Your task to perform on an android device: add a contact Image 0: 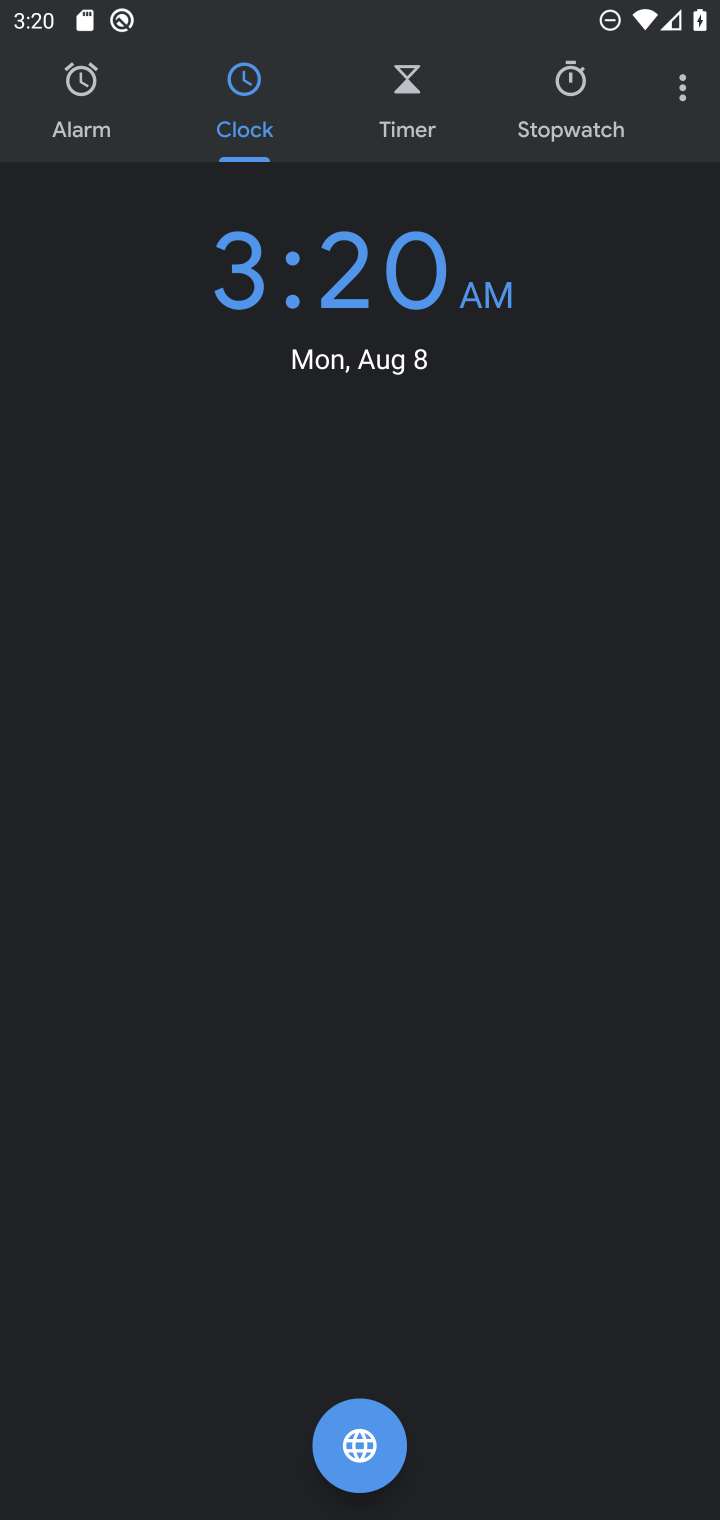
Step 0: press home button
Your task to perform on an android device: add a contact Image 1: 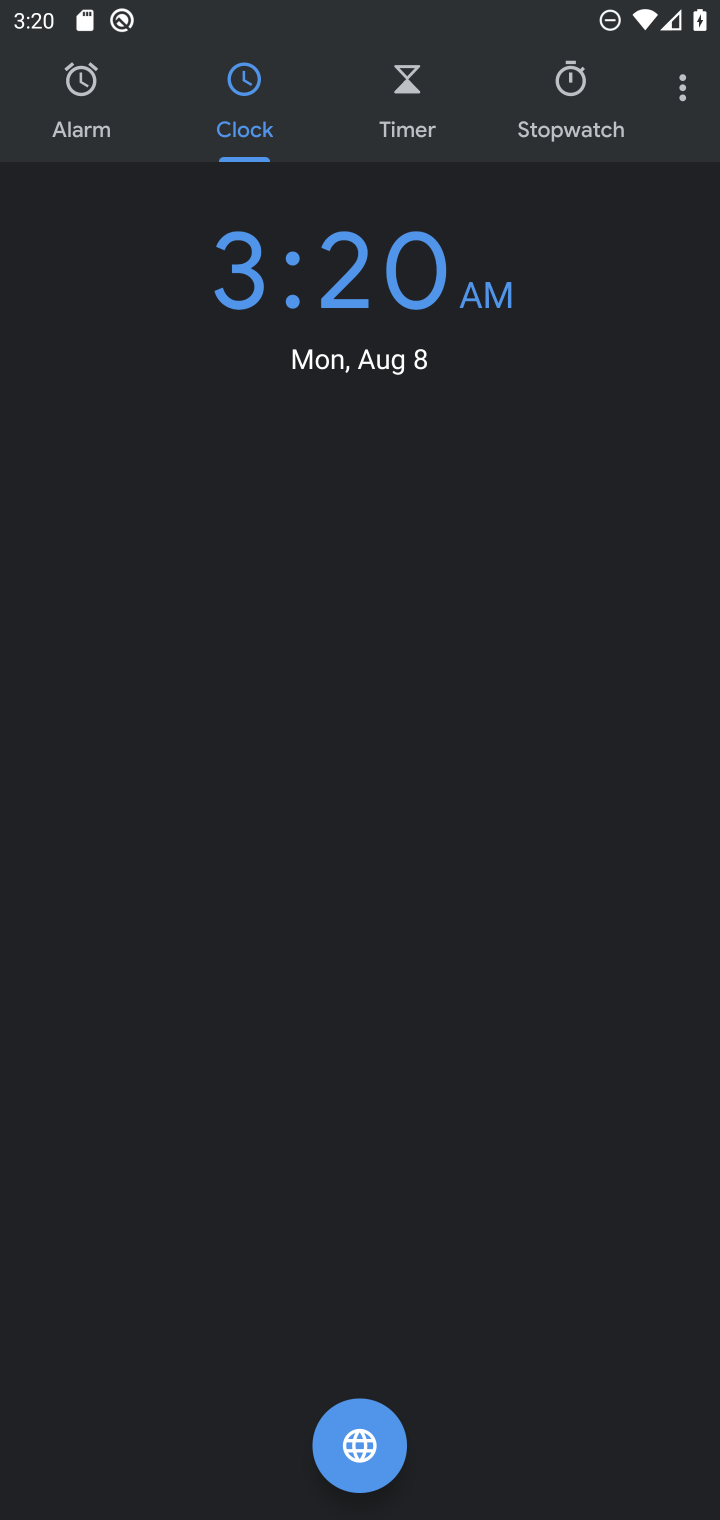
Step 1: press home button
Your task to perform on an android device: add a contact Image 2: 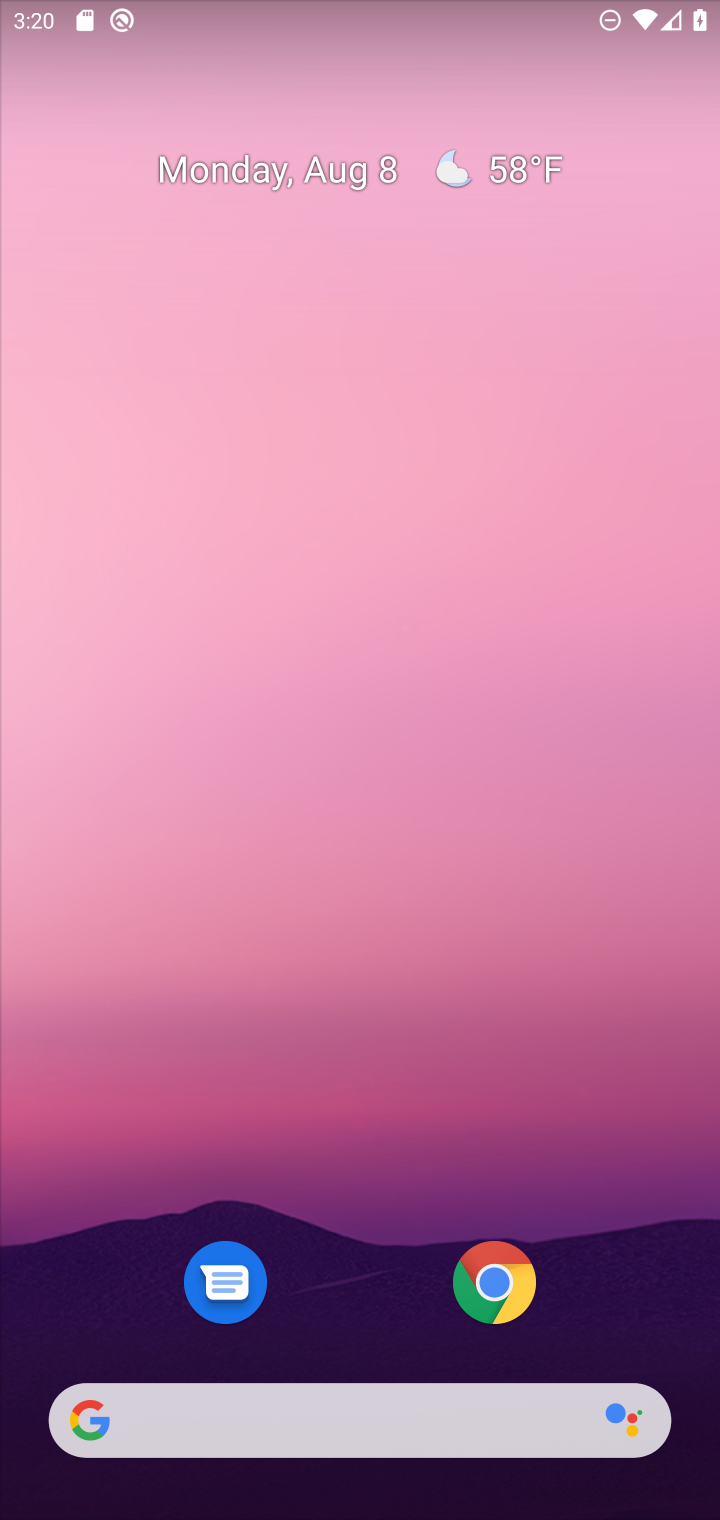
Step 2: drag from (355, 1145) to (561, 190)
Your task to perform on an android device: add a contact Image 3: 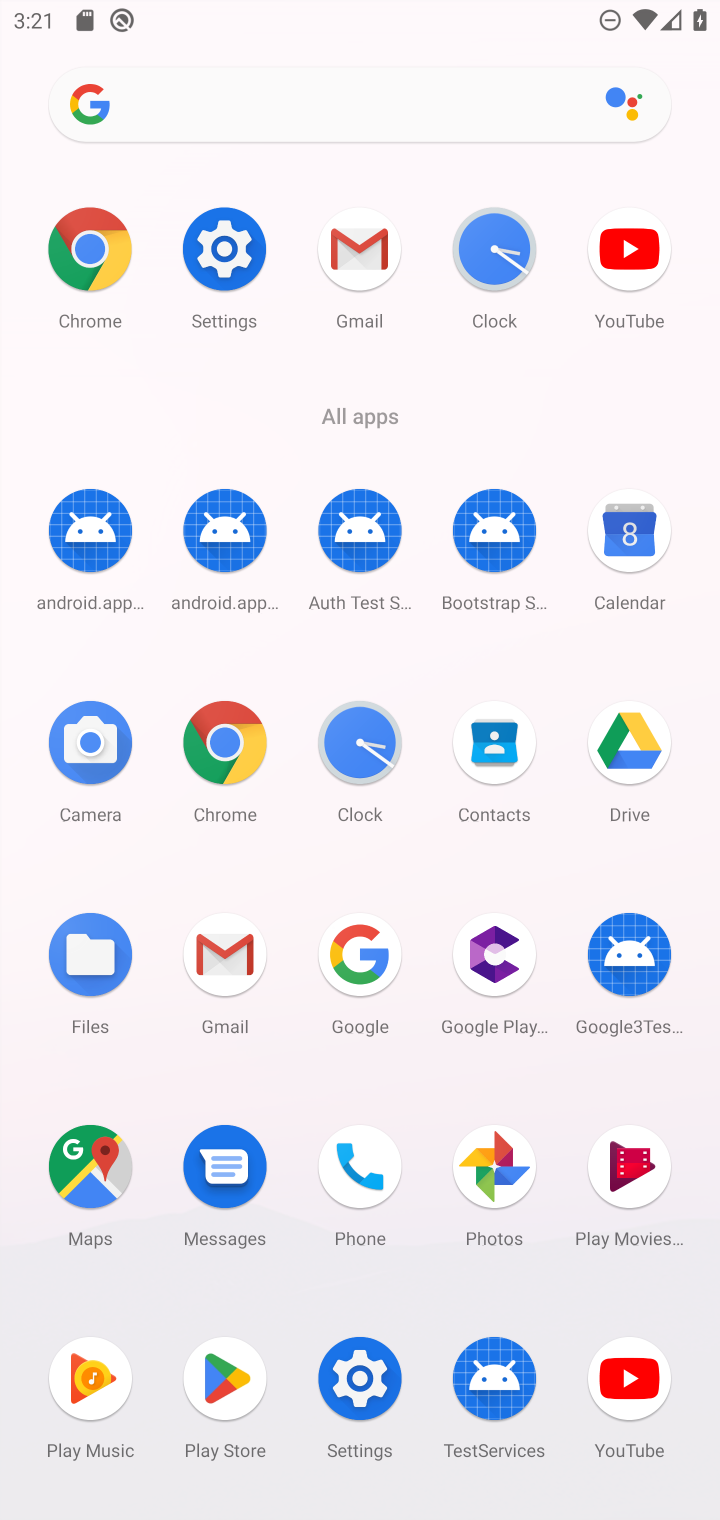
Step 3: click (618, 521)
Your task to perform on an android device: add a contact Image 4: 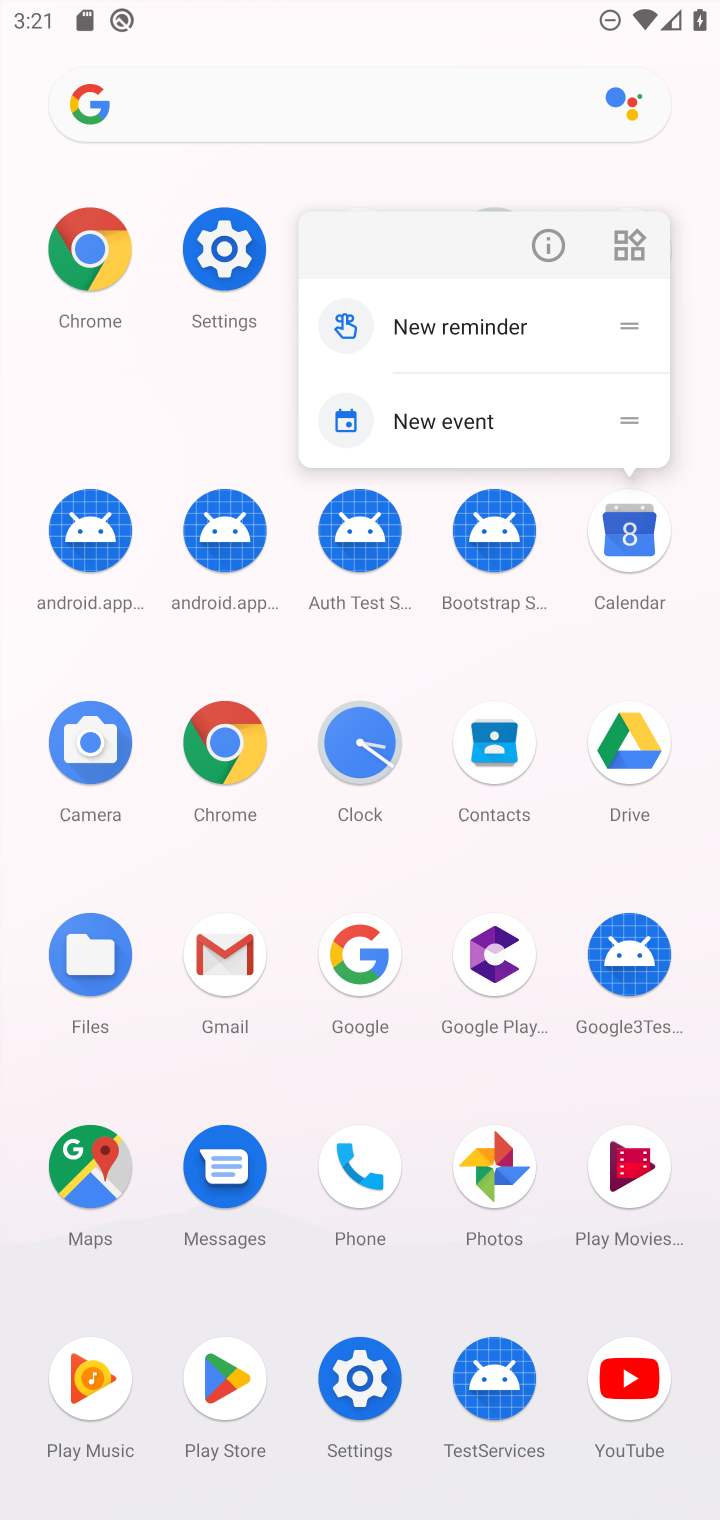
Step 4: click (623, 528)
Your task to perform on an android device: add a contact Image 5: 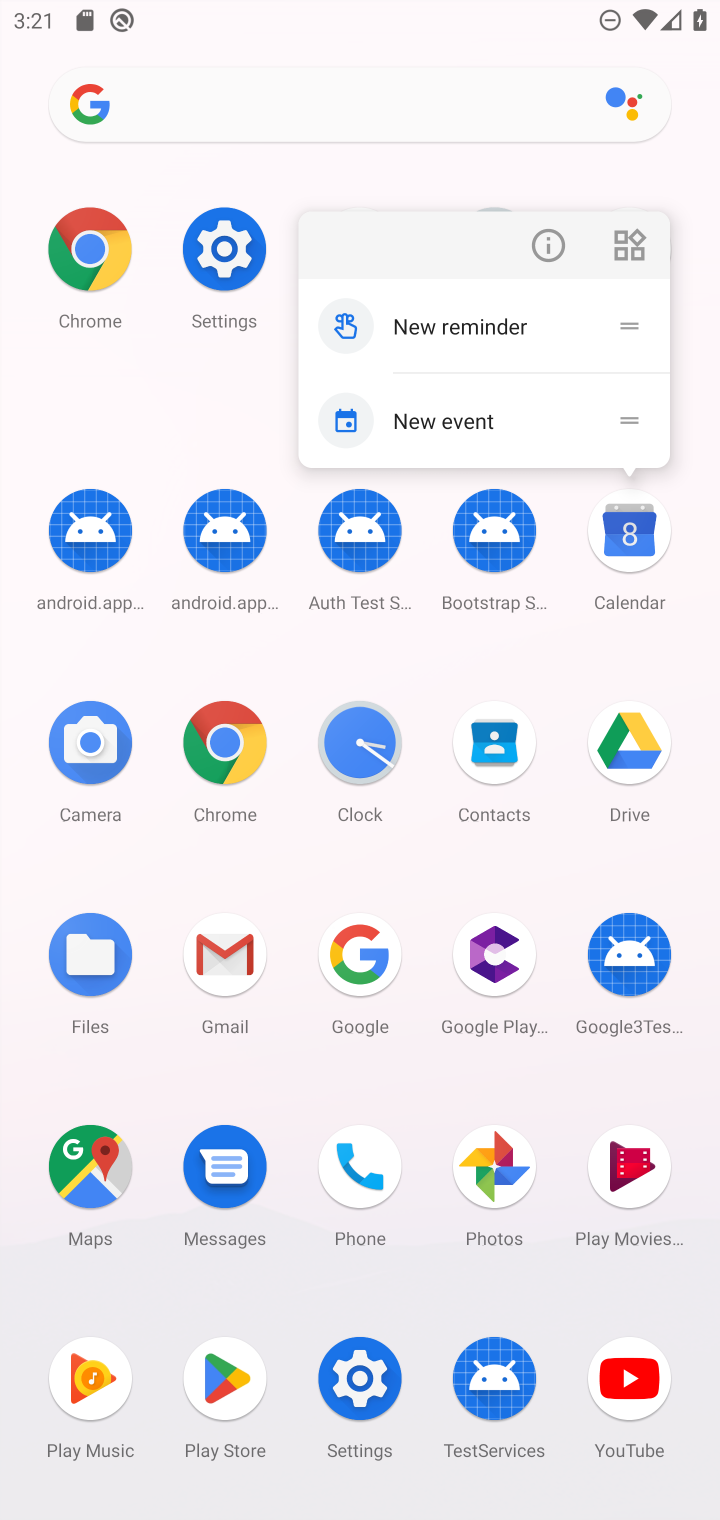
Step 5: click (623, 528)
Your task to perform on an android device: add a contact Image 6: 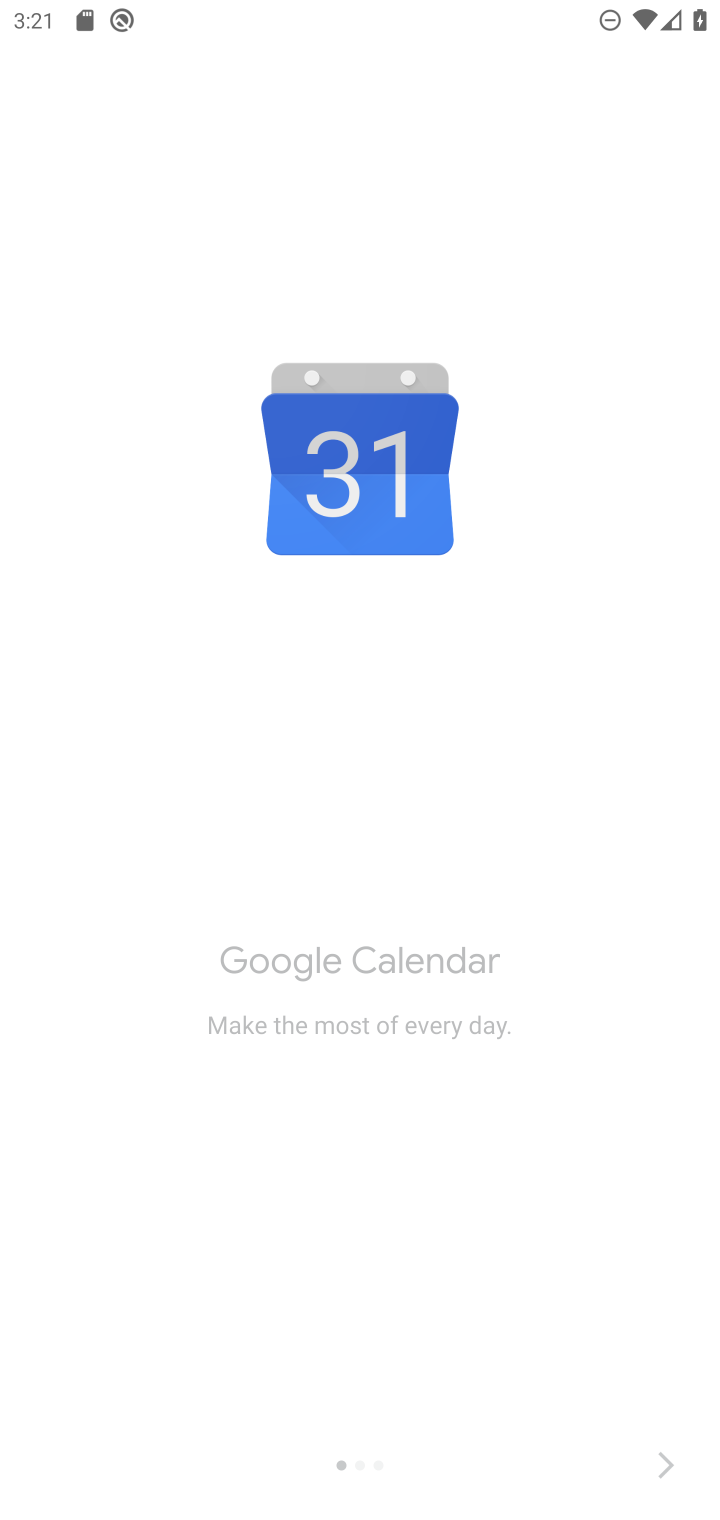
Step 6: click (625, 530)
Your task to perform on an android device: add a contact Image 7: 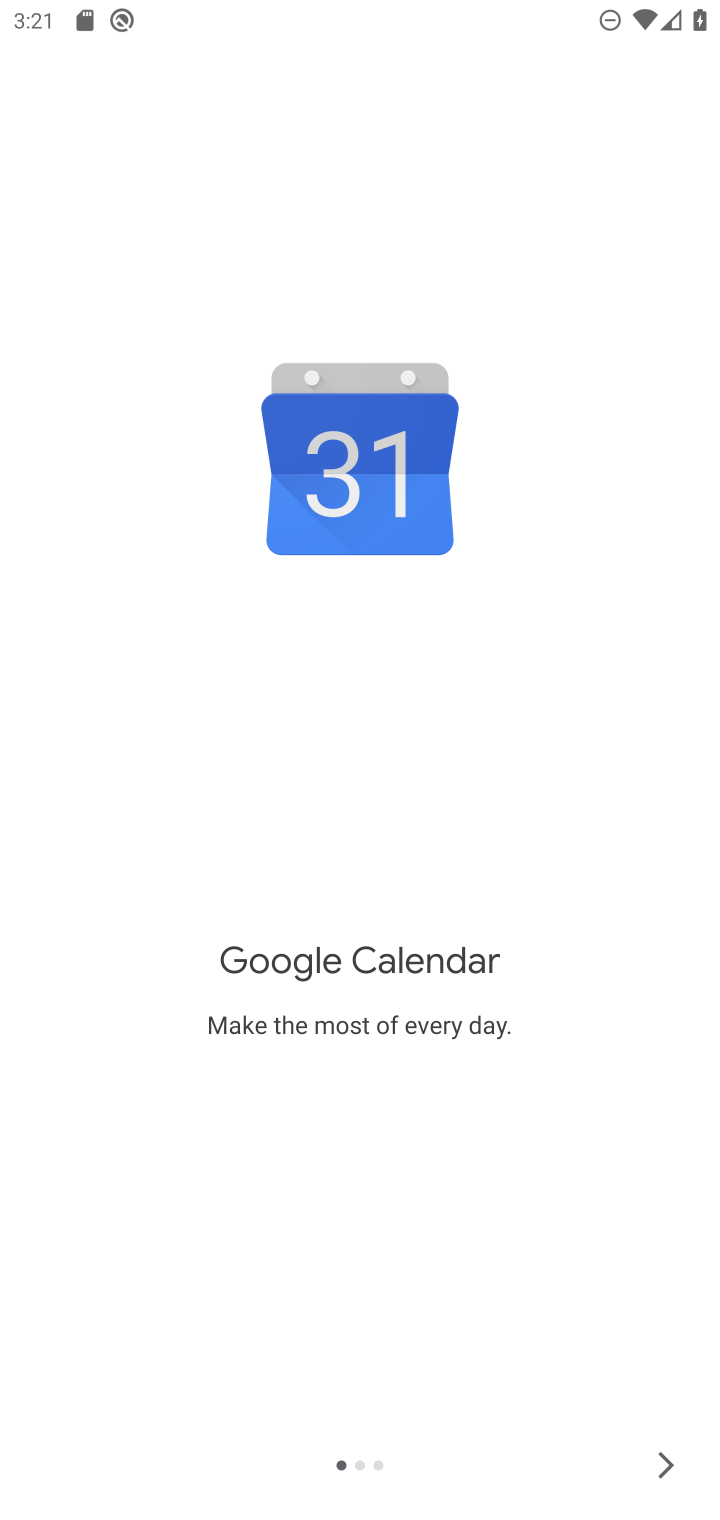
Step 7: click (654, 1452)
Your task to perform on an android device: add a contact Image 8: 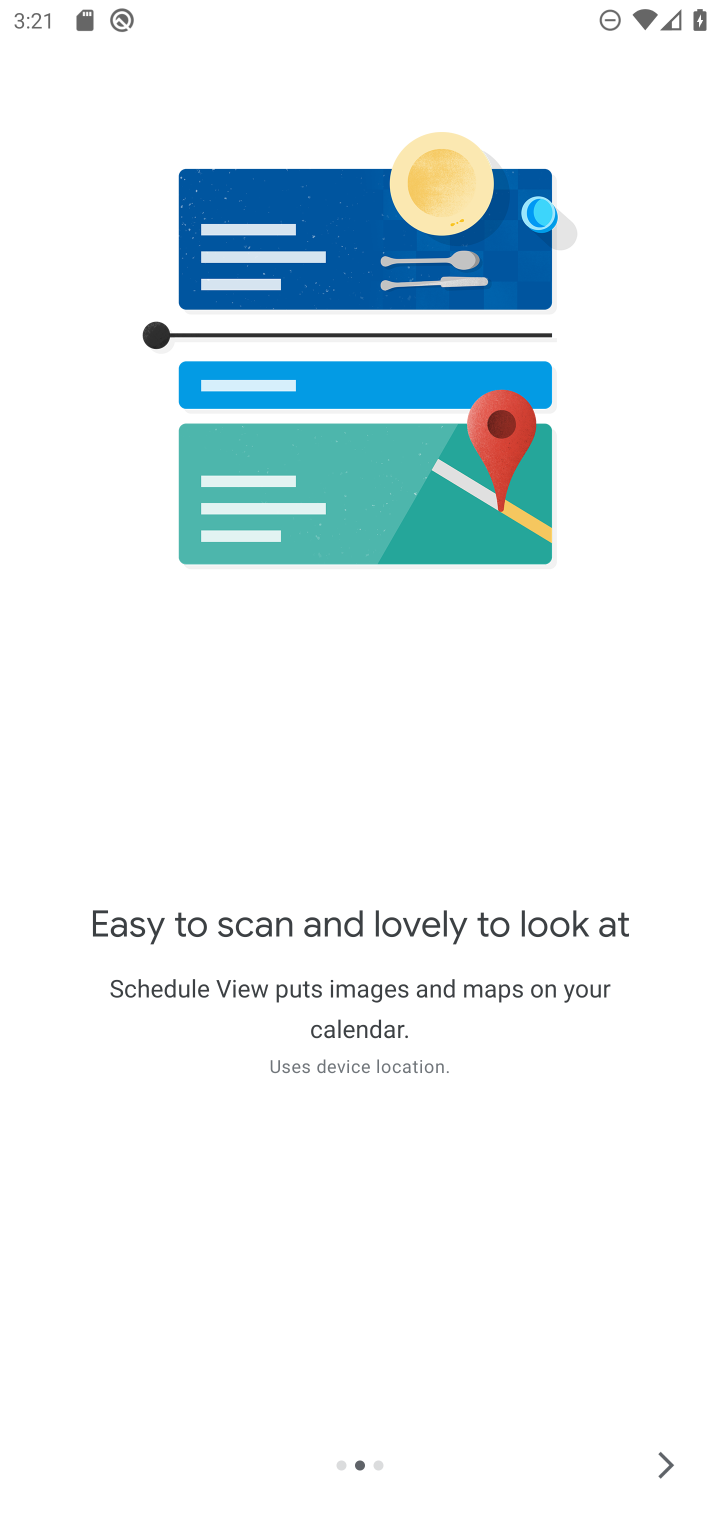
Step 8: click (648, 1471)
Your task to perform on an android device: add a contact Image 9: 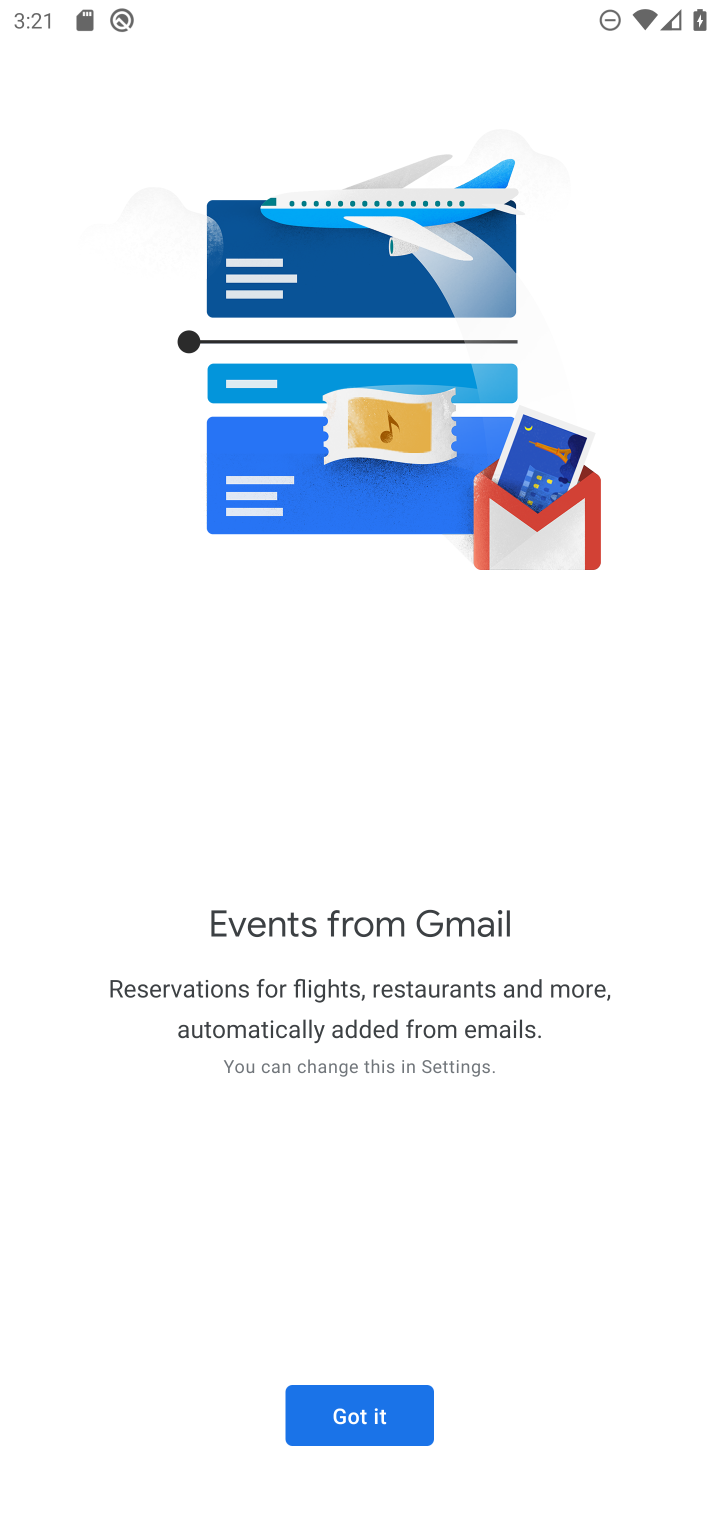
Step 9: press home button
Your task to perform on an android device: add a contact Image 10: 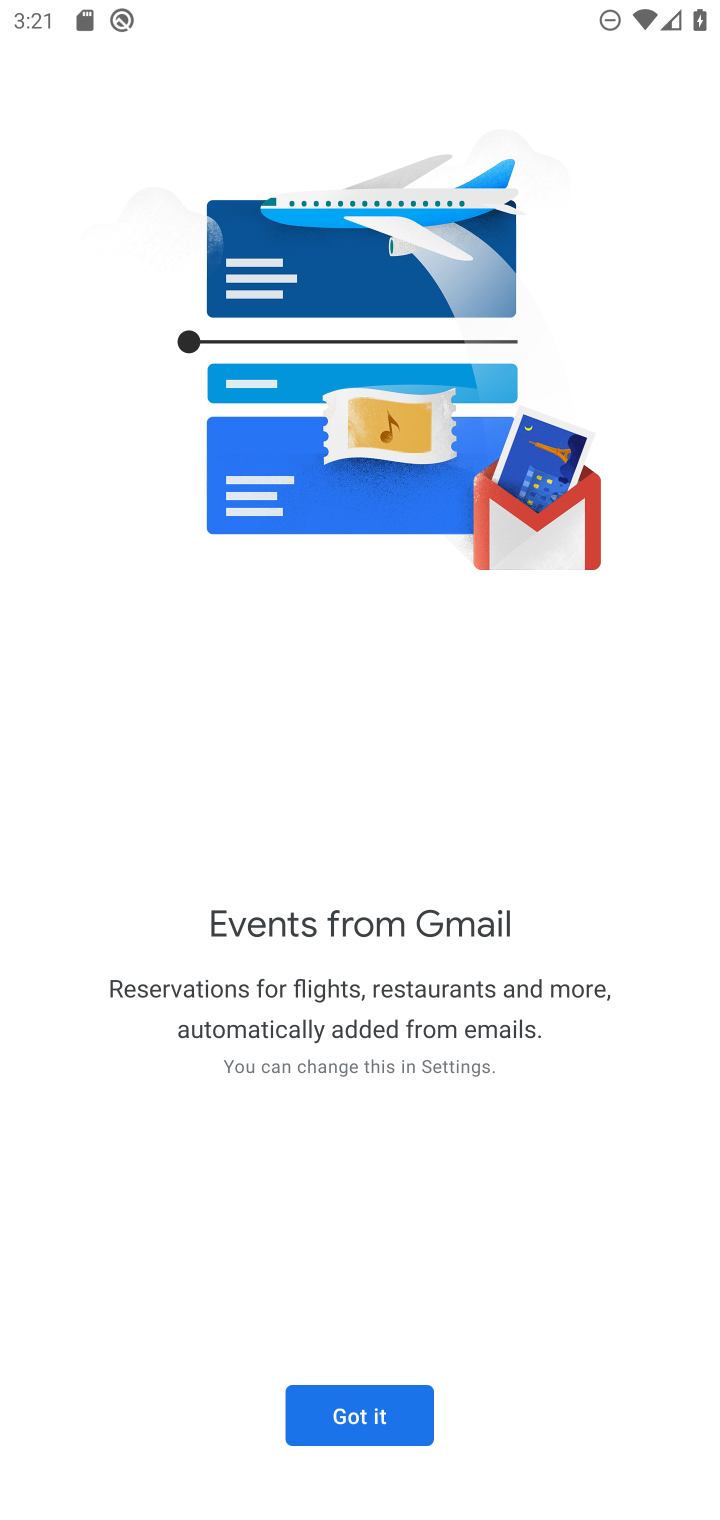
Step 10: press home button
Your task to perform on an android device: add a contact Image 11: 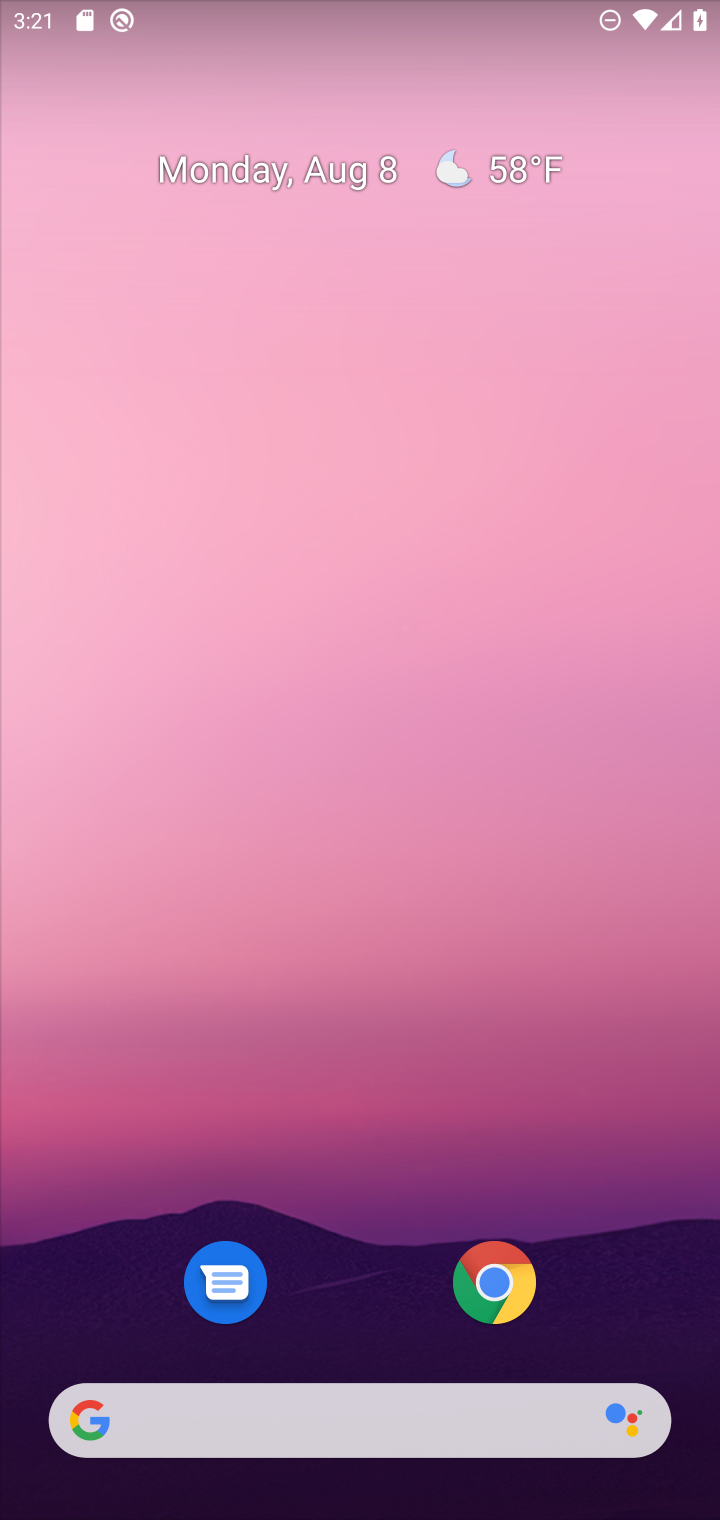
Step 11: drag from (394, 960) to (492, 177)
Your task to perform on an android device: add a contact Image 12: 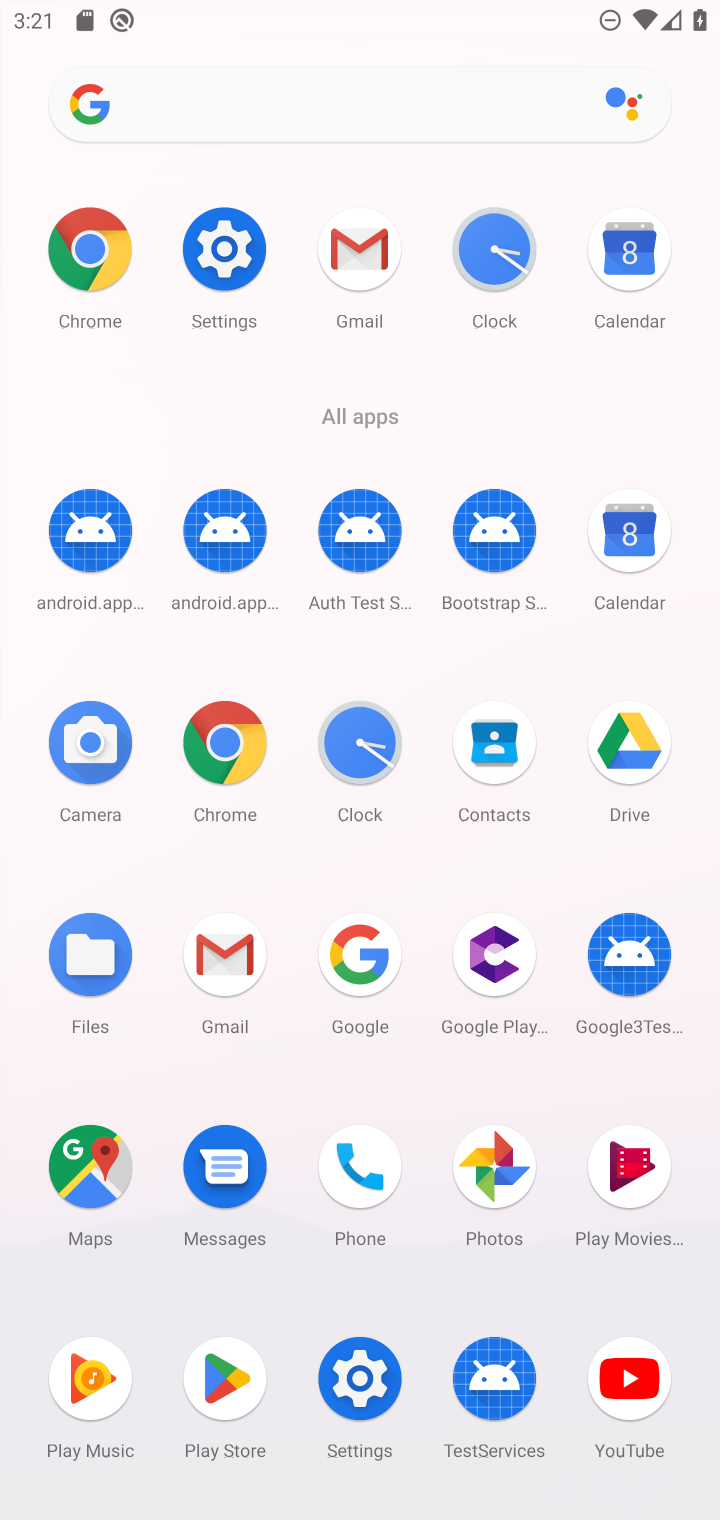
Step 12: click (499, 760)
Your task to perform on an android device: add a contact Image 13: 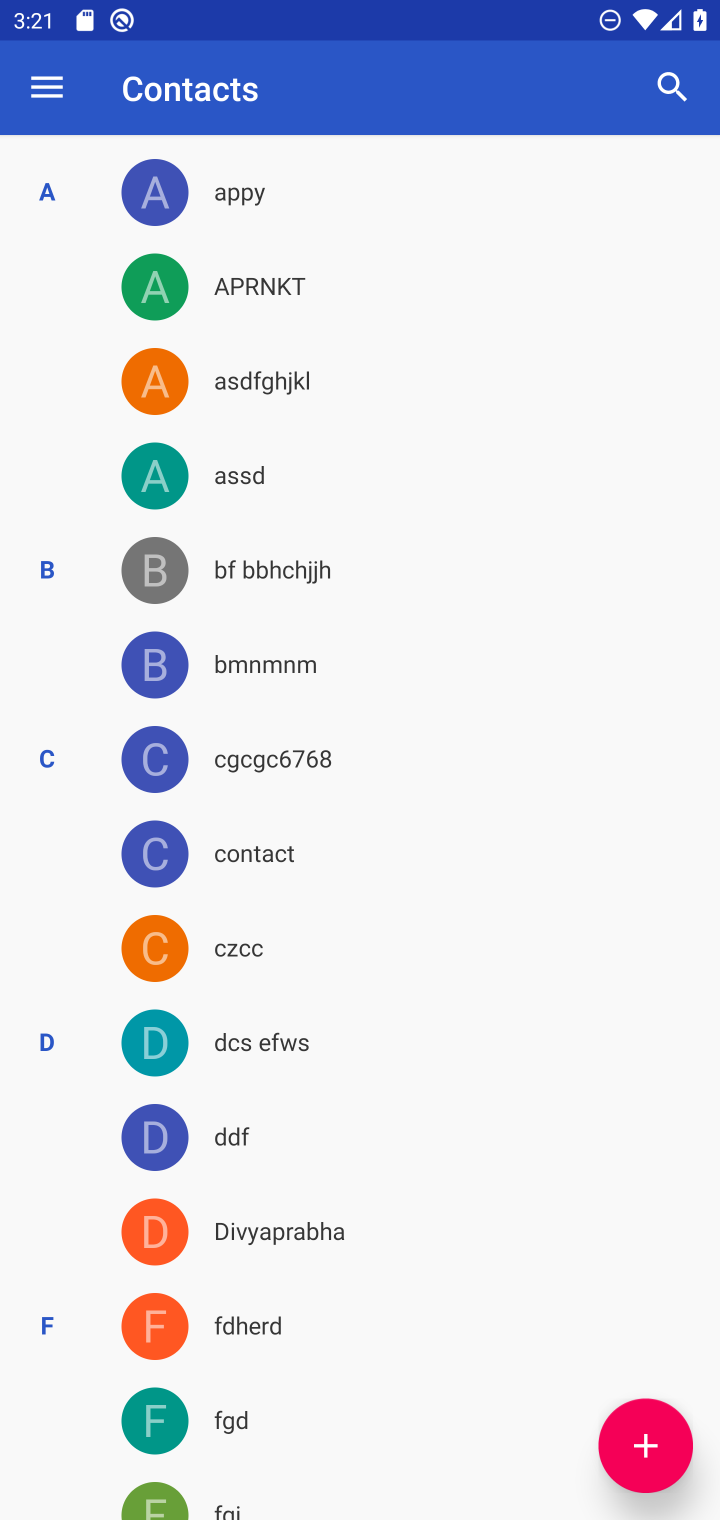
Step 13: click (642, 1447)
Your task to perform on an android device: add a contact Image 14: 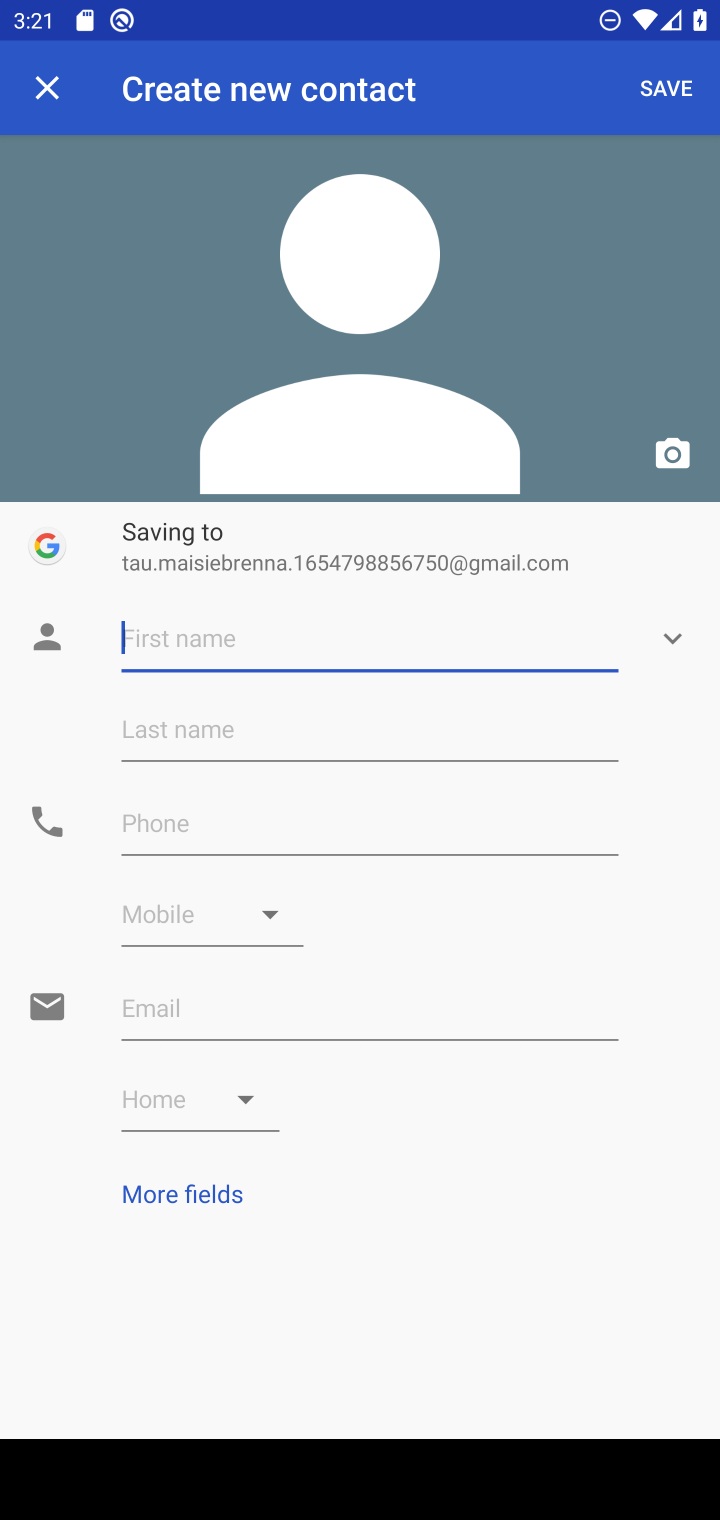
Step 14: type "500"
Your task to perform on an android device: add a contact Image 15: 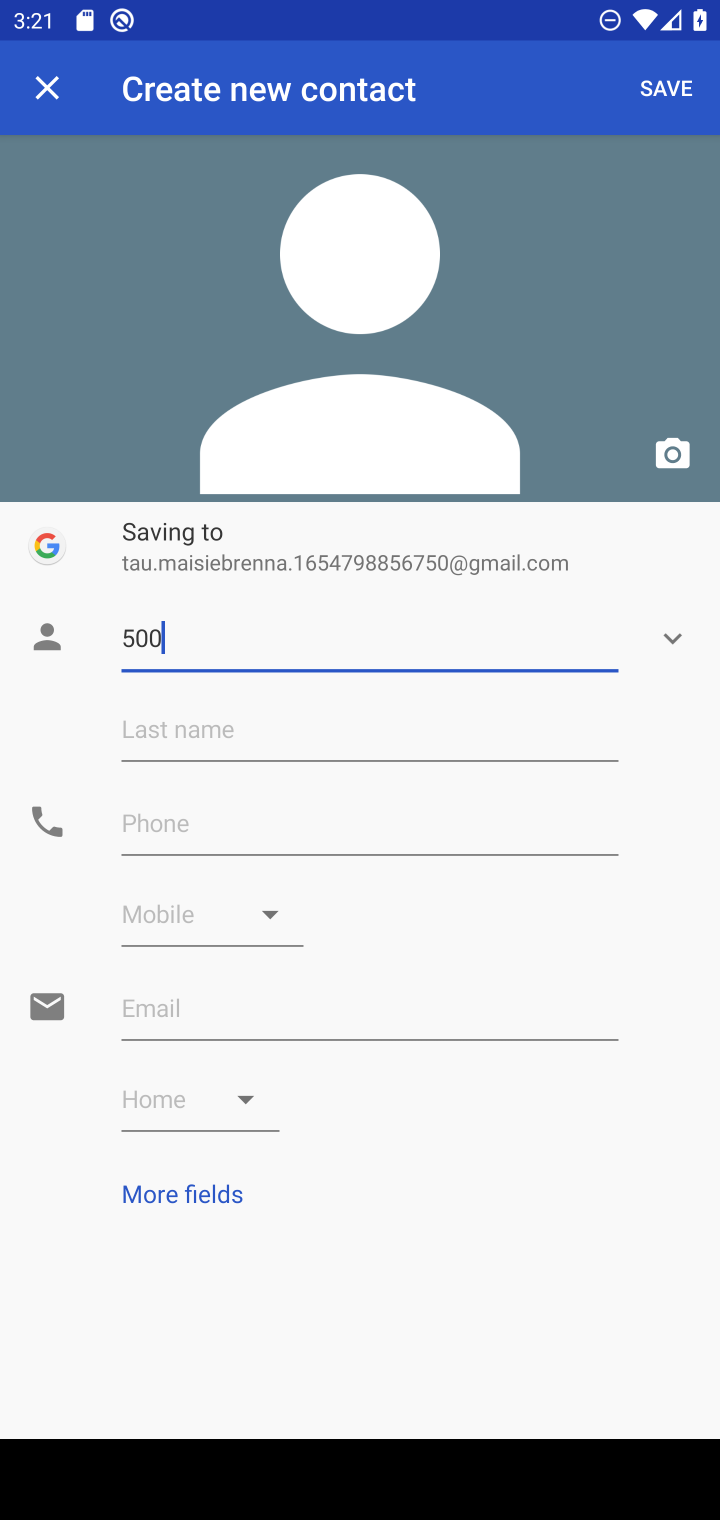
Step 15: click (684, 93)
Your task to perform on an android device: add a contact Image 16: 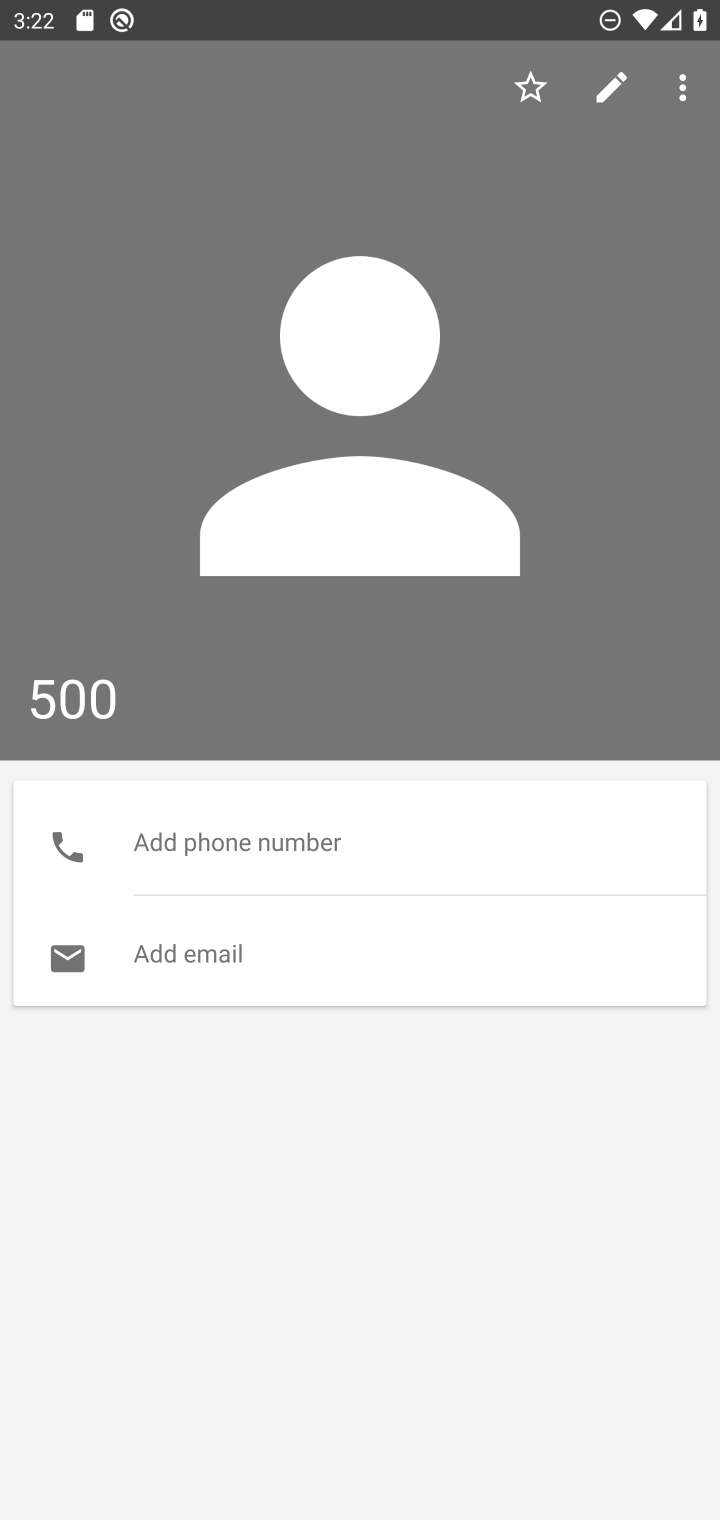
Step 16: task complete